Your task to perform on an android device: find photos in the google photos app Image 0: 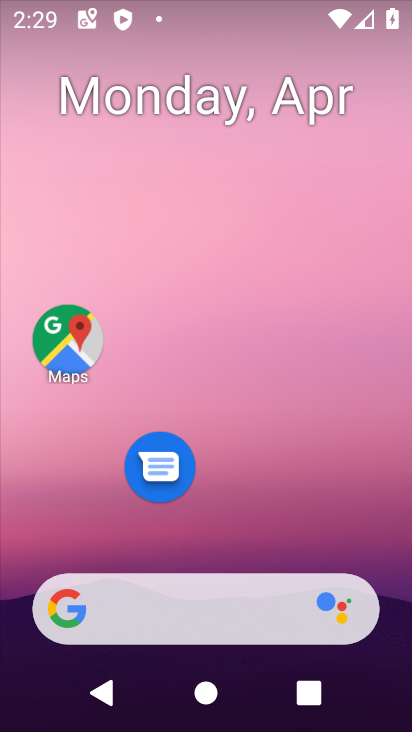
Step 0: drag from (274, 512) to (344, 148)
Your task to perform on an android device: find photos in the google photos app Image 1: 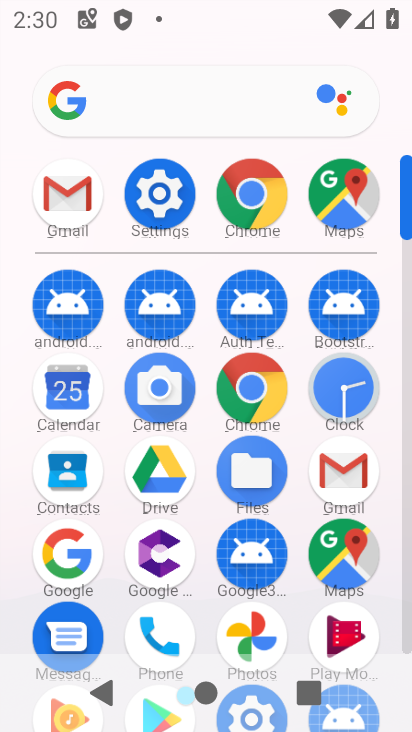
Step 1: drag from (228, 578) to (263, 241)
Your task to perform on an android device: find photos in the google photos app Image 2: 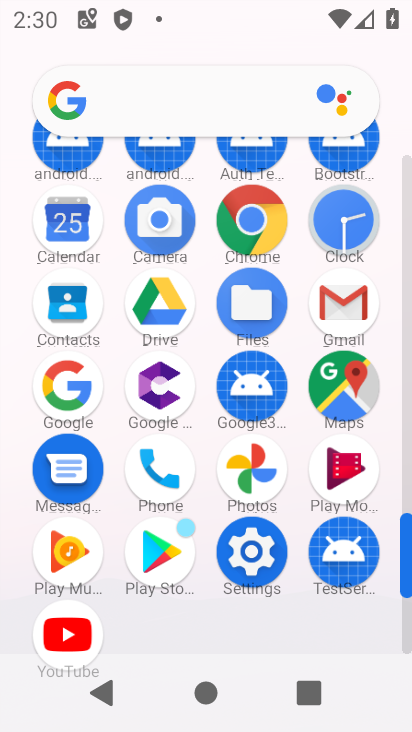
Step 2: click (255, 448)
Your task to perform on an android device: find photos in the google photos app Image 3: 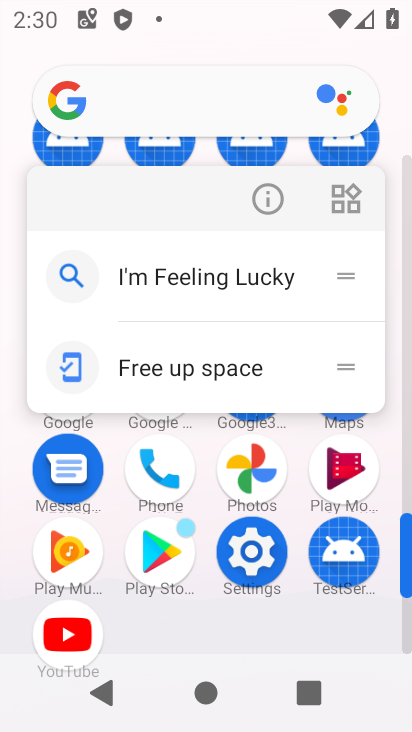
Step 3: click (260, 450)
Your task to perform on an android device: find photos in the google photos app Image 4: 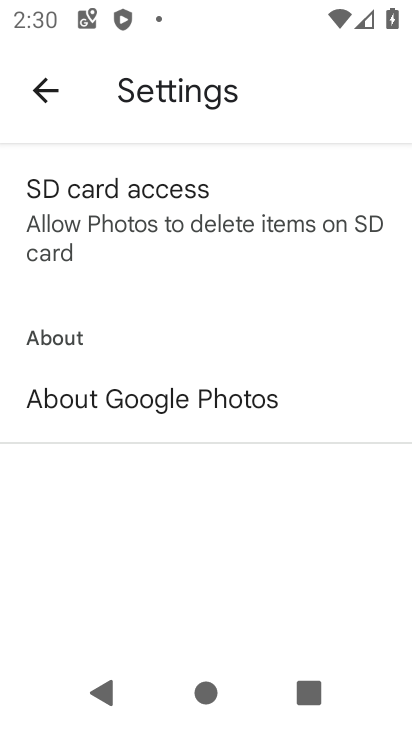
Step 4: click (51, 92)
Your task to perform on an android device: find photos in the google photos app Image 5: 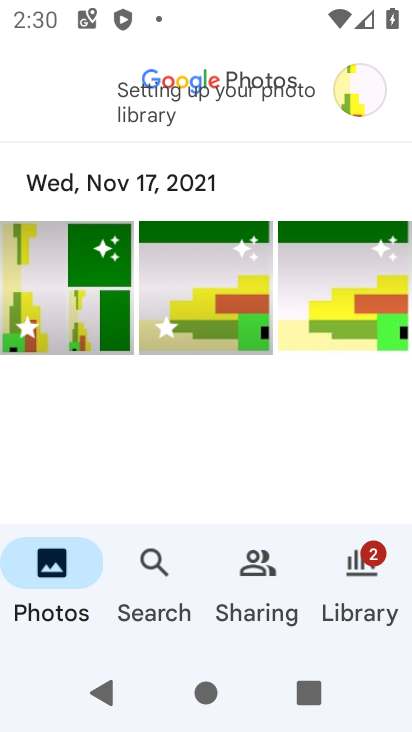
Step 5: task complete